Your task to perform on an android device: visit the assistant section in the google photos Image 0: 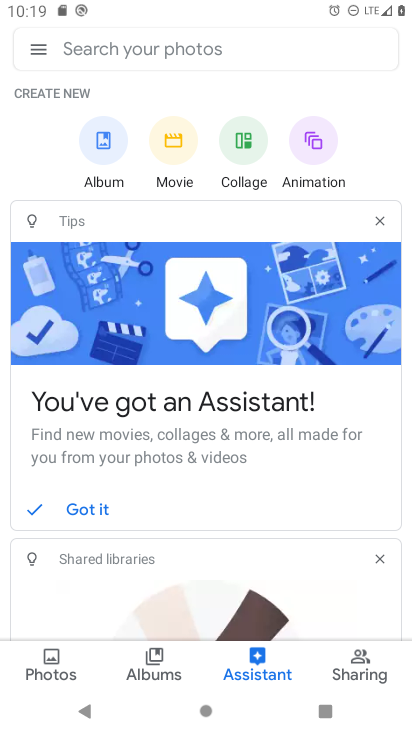
Step 0: press home button
Your task to perform on an android device: visit the assistant section in the google photos Image 1: 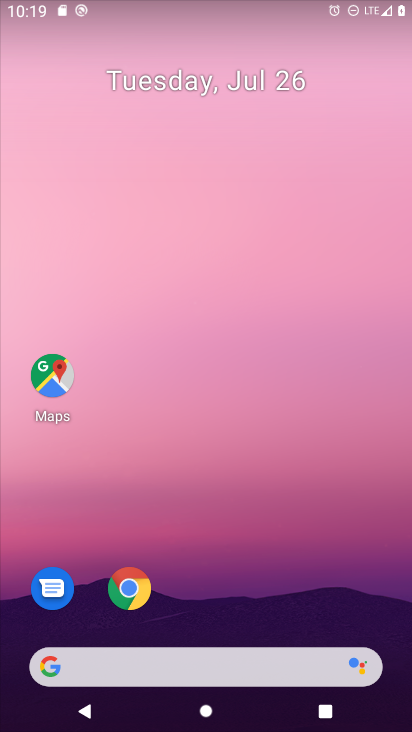
Step 1: drag from (273, 613) to (311, 188)
Your task to perform on an android device: visit the assistant section in the google photos Image 2: 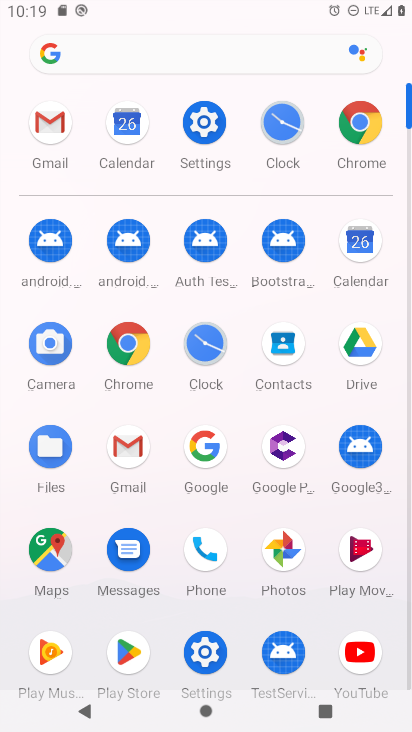
Step 2: click (276, 552)
Your task to perform on an android device: visit the assistant section in the google photos Image 3: 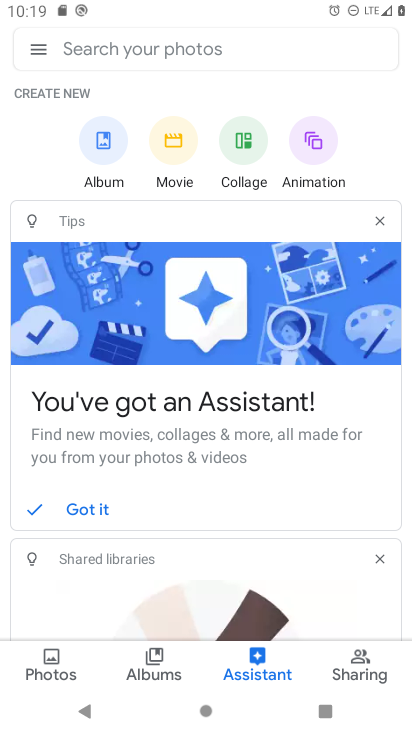
Step 3: click (261, 655)
Your task to perform on an android device: visit the assistant section in the google photos Image 4: 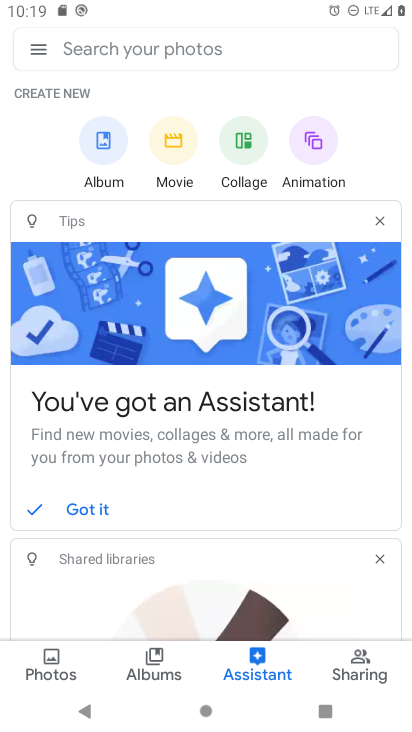
Step 4: task complete